Your task to perform on an android device: turn pop-ups off in chrome Image 0: 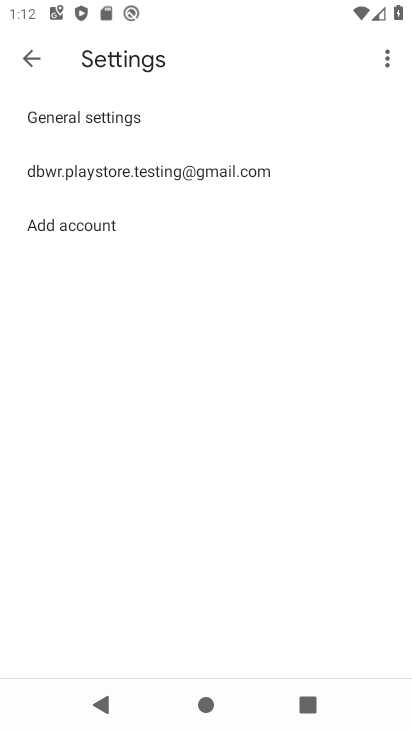
Step 0: press home button
Your task to perform on an android device: turn pop-ups off in chrome Image 1: 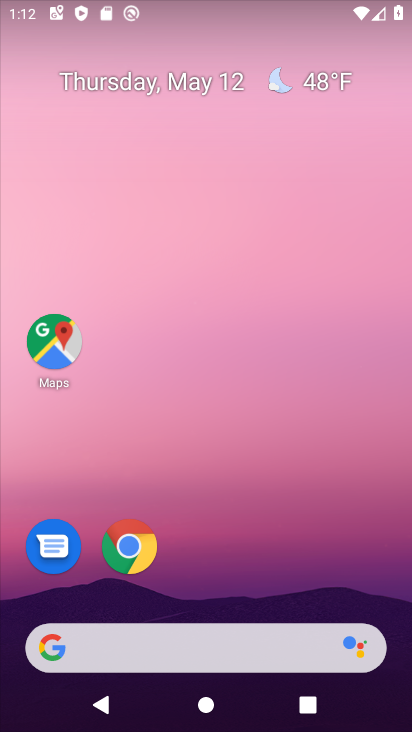
Step 1: click (131, 551)
Your task to perform on an android device: turn pop-ups off in chrome Image 2: 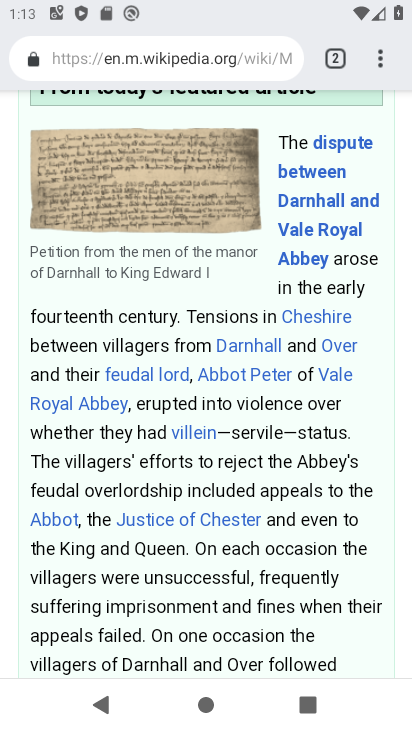
Step 2: drag from (377, 60) to (236, 578)
Your task to perform on an android device: turn pop-ups off in chrome Image 3: 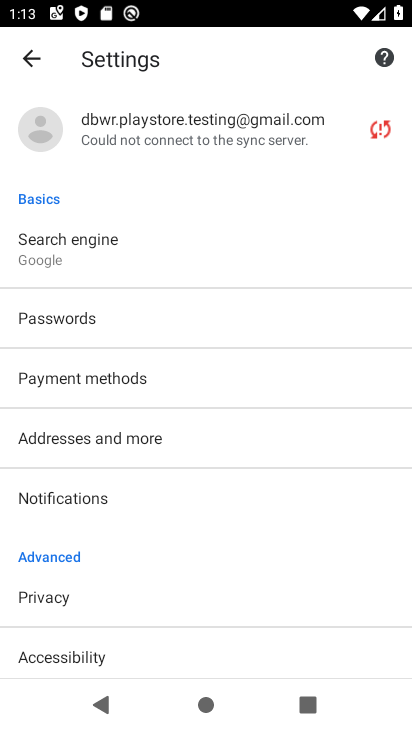
Step 3: drag from (164, 602) to (319, 271)
Your task to perform on an android device: turn pop-ups off in chrome Image 4: 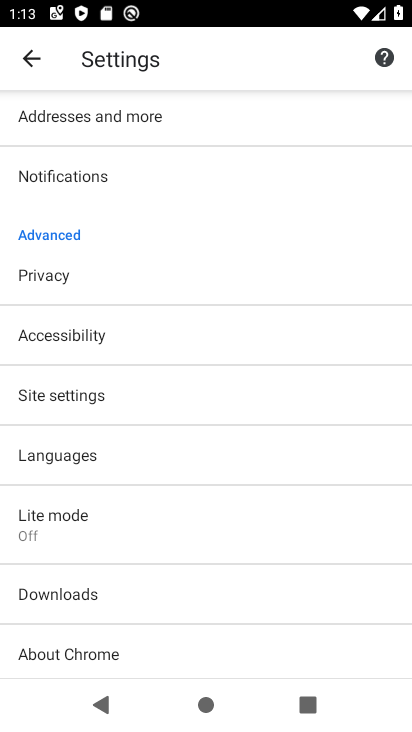
Step 4: click (103, 400)
Your task to perform on an android device: turn pop-ups off in chrome Image 5: 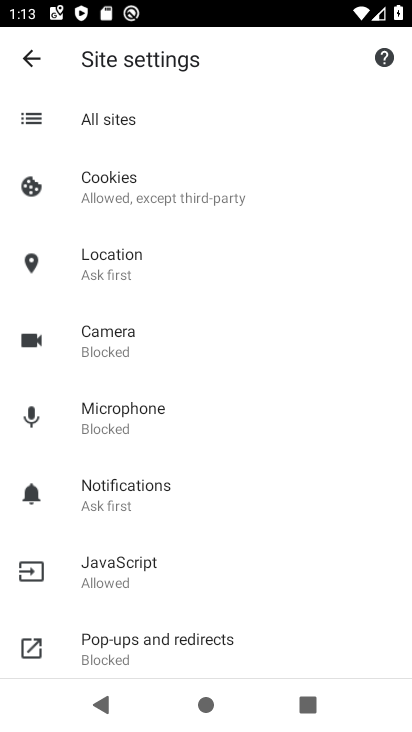
Step 5: drag from (239, 563) to (332, 158)
Your task to perform on an android device: turn pop-ups off in chrome Image 6: 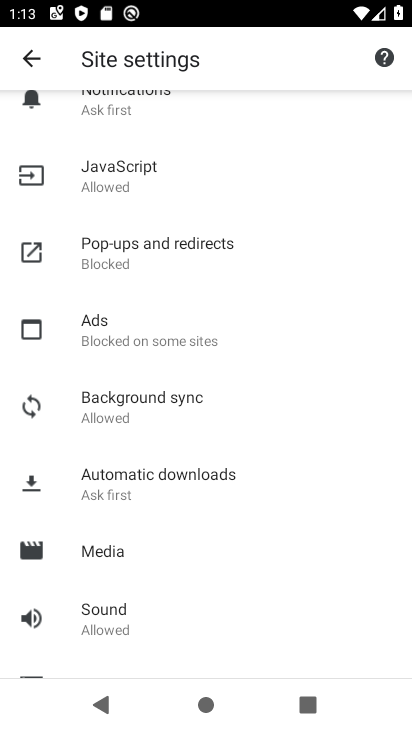
Step 6: click (166, 245)
Your task to perform on an android device: turn pop-ups off in chrome Image 7: 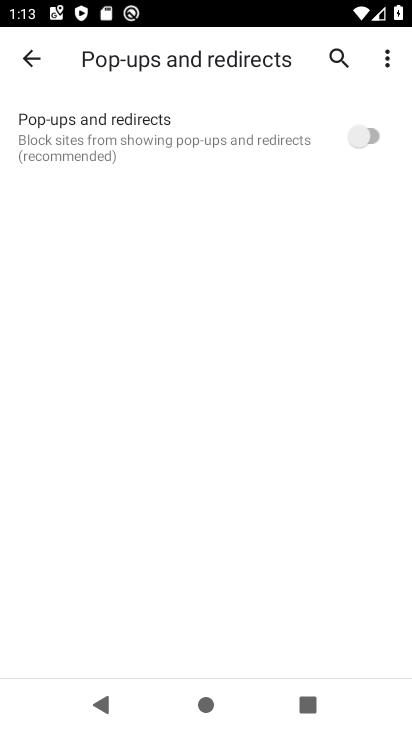
Step 7: task complete